Your task to perform on an android device: turn off data saver in the chrome app Image 0: 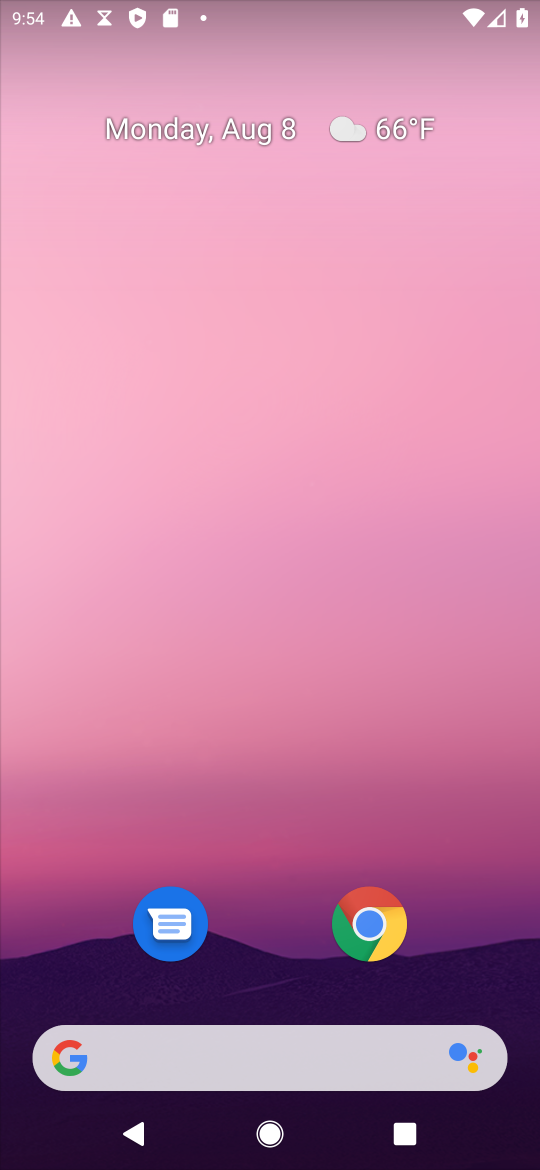
Step 0: drag from (253, 984) to (136, 83)
Your task to perform on an android device: turn off data saver in the chrome app Image 1: 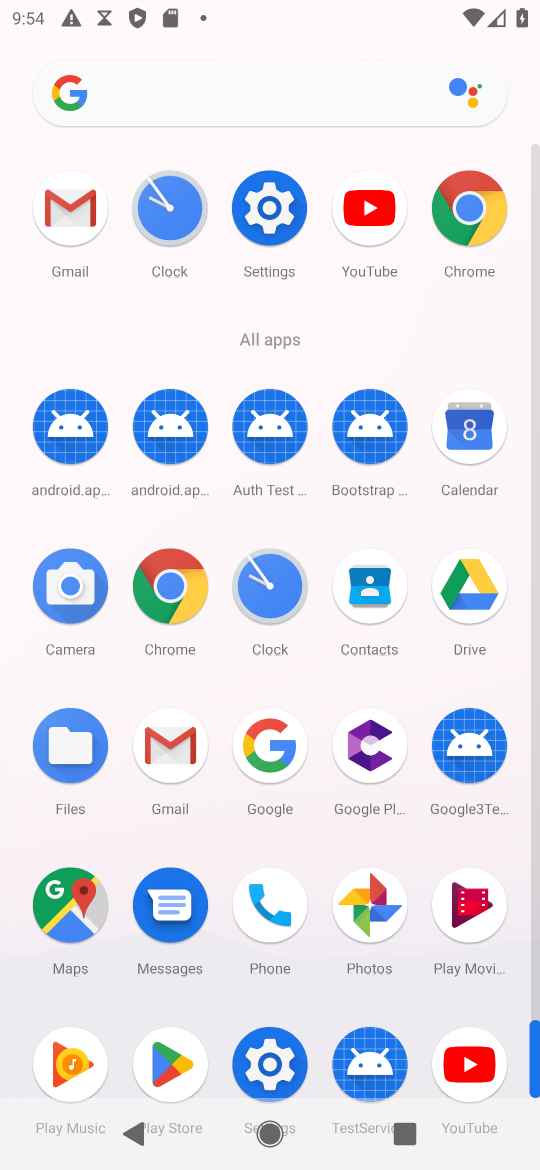
Step 1: drag from (268, 1065) to (536, 881)
Your task to perform on an android device: turn off data saver in the chrome app Image 2: 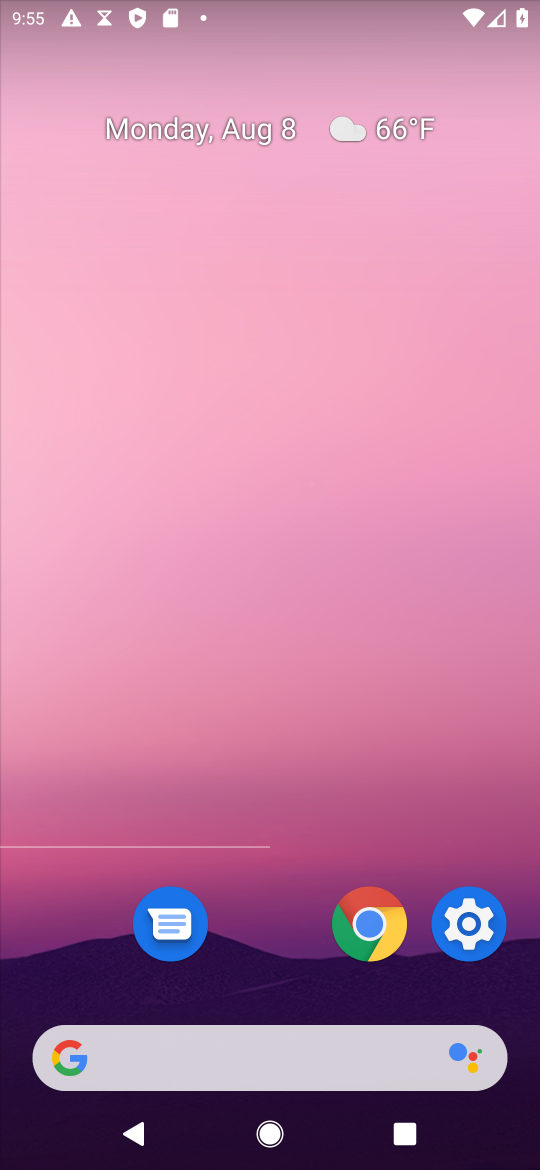
Step 2: drag from (271, 968) to (341, 108)
Your task to perform on an android device: turn off data saver in the chrome app Image 3: 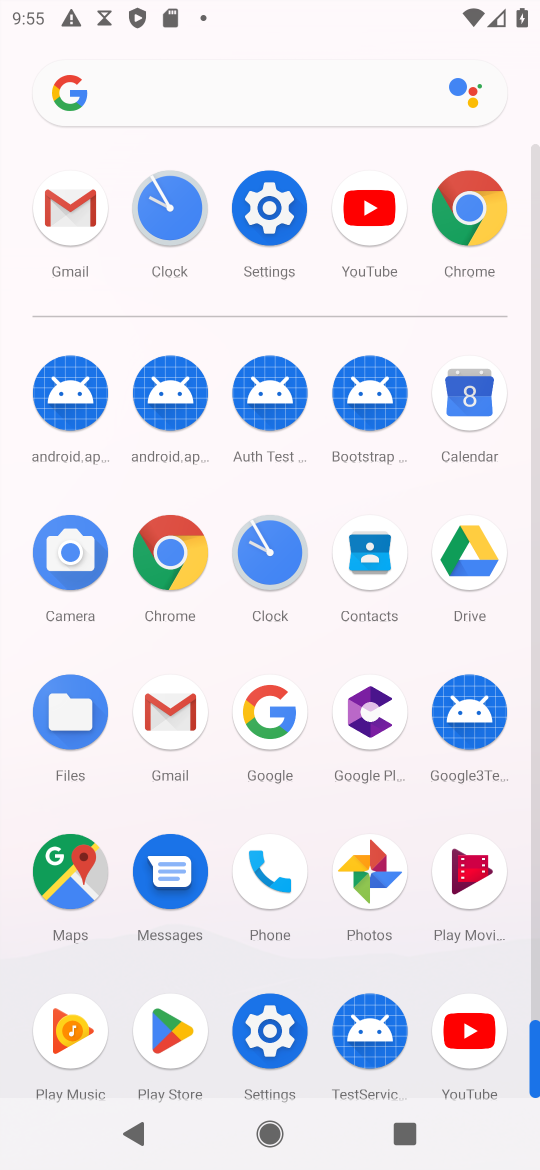
Step 3: drag from (292, 1032) to (276, 323)
Your task to perform on an android device: turn off data saver in the chrome app Image 4: 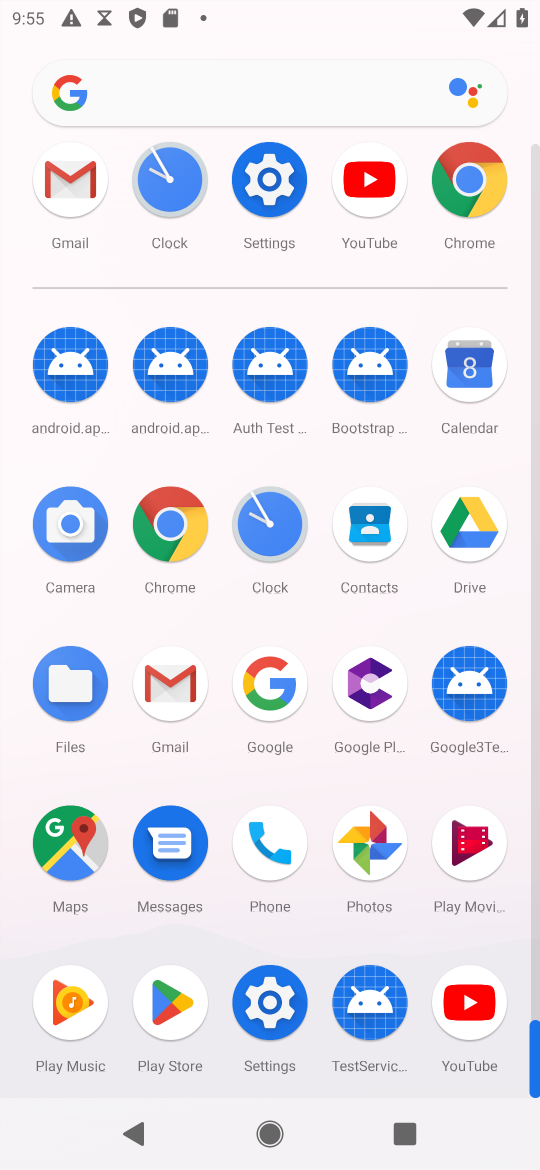
Step 4: click (140, 515)
Your task to perform on an android device: turn off data saver in the chrome app Image 5: 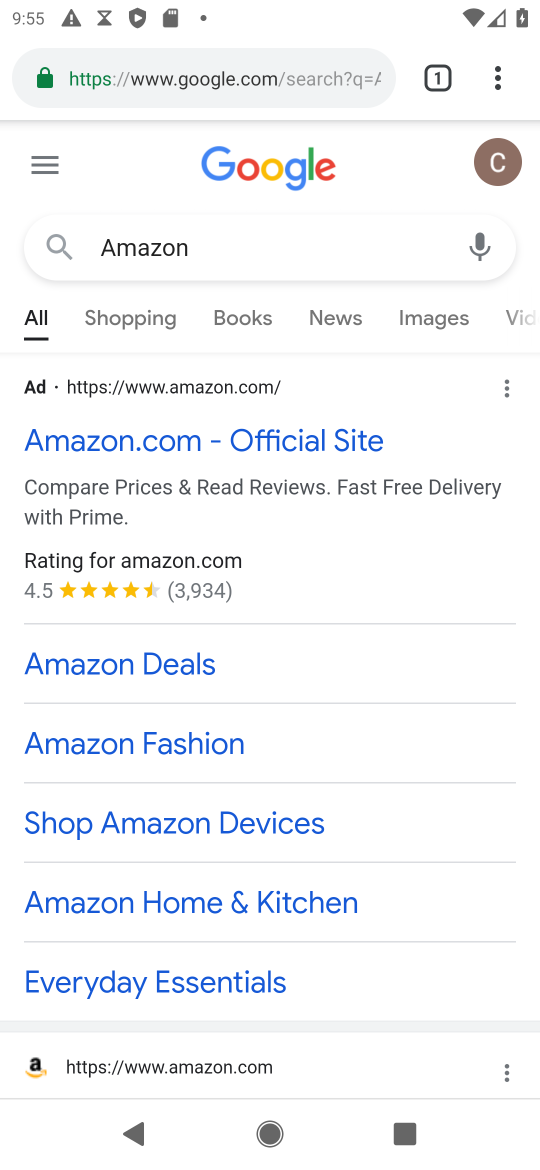
Step 5: drag from (311, 958) to (317, 423)
Your task to perform on an android device: turn off data saver in the chrome app Image 6: 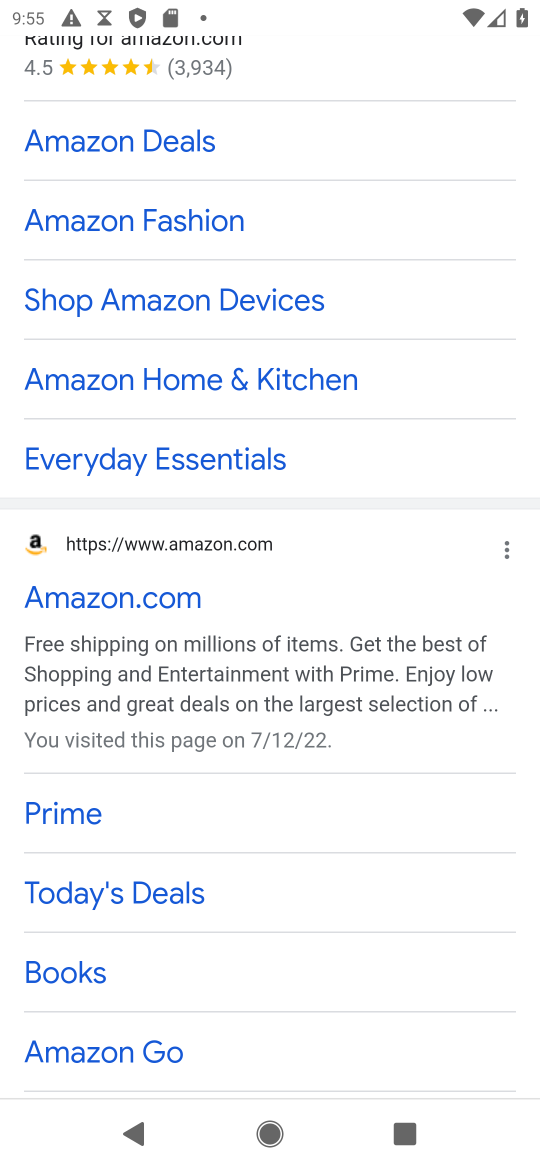
Step 6: drag from (248, 306) to (178, 1038)
Your task to perform on an android device: turn off data saver in the chrome app Image 7: 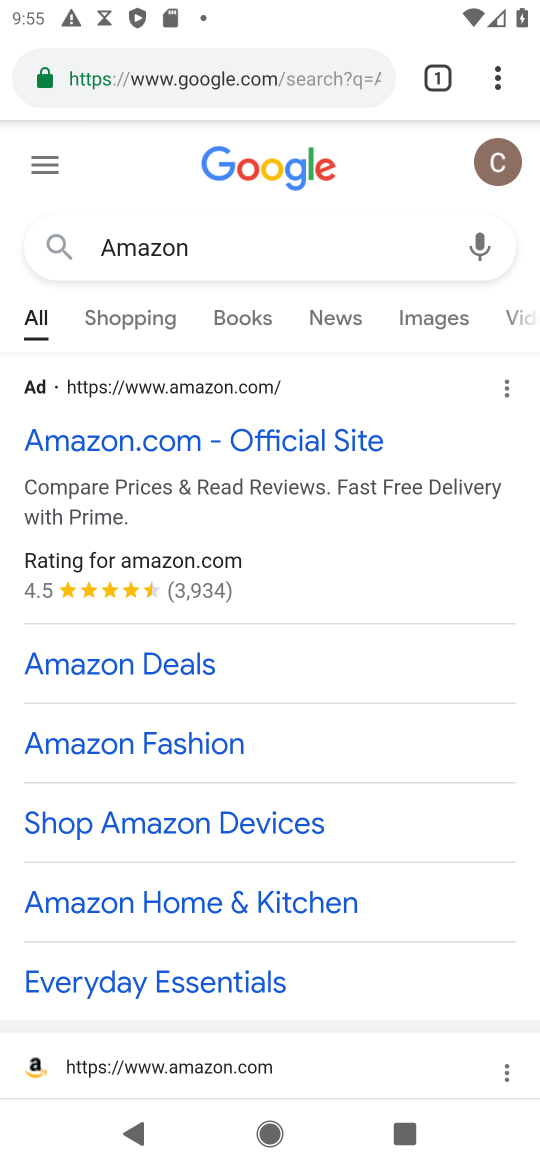
Step 7: drag from (498, 71) to (196, 957)
Your task to perform on an android device: turn off data saver in the chrome app Image 8: 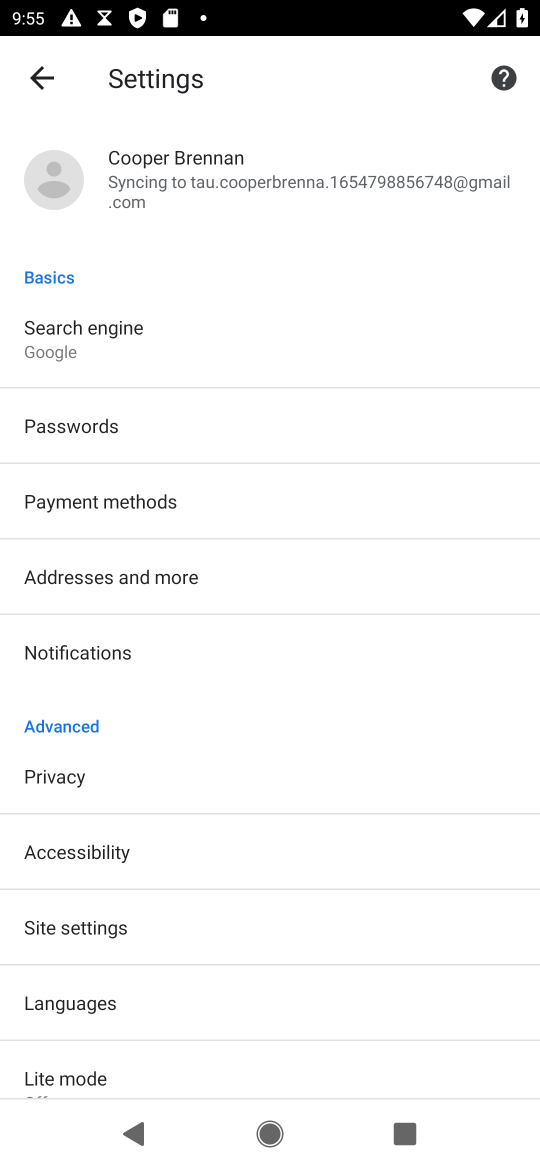
Step 8: drag from (196, 1013) to (199, 647)
Your task to perform on an android device: turn off data saver in the chrome app Image 9: 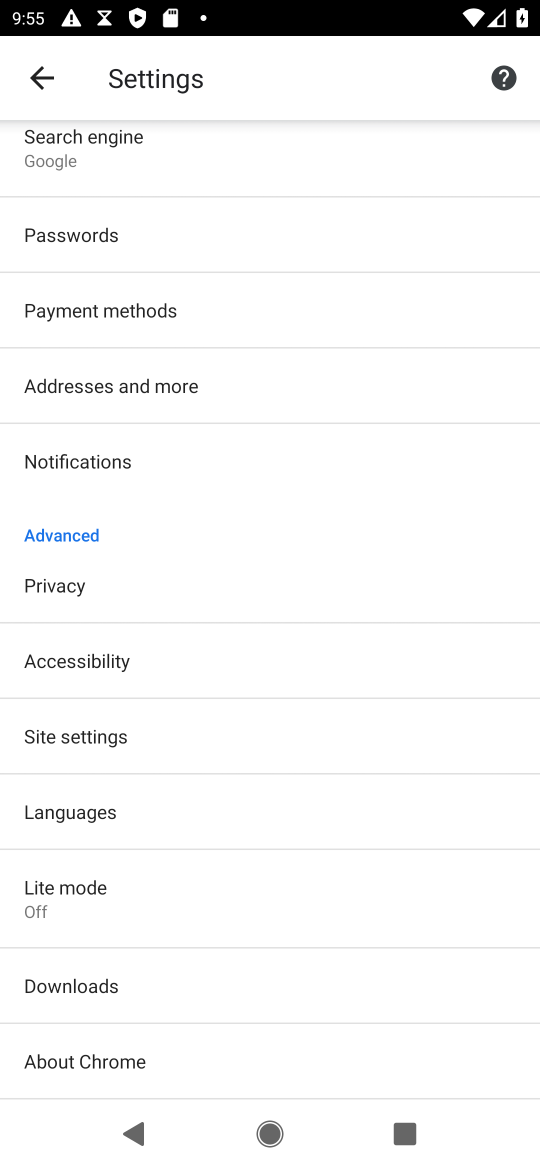
Step 9: click (77, 880)
Your task to perform on an android device: turn off data saver in the chrome app Image 10: 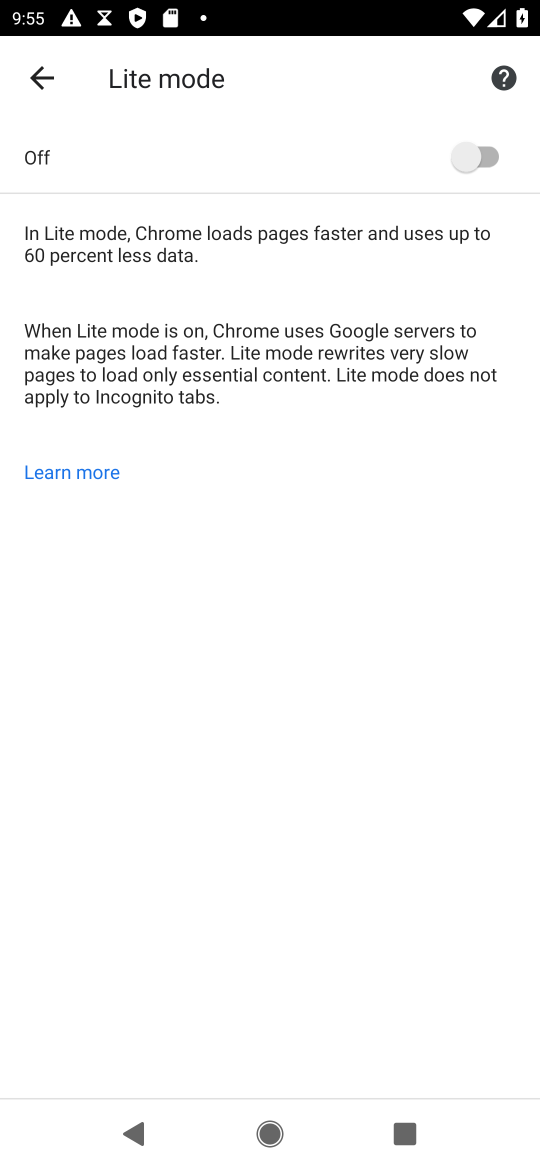
Step 10: task complete